Your task to perform on an android device: visit the assistant section in the google photos Image 0: 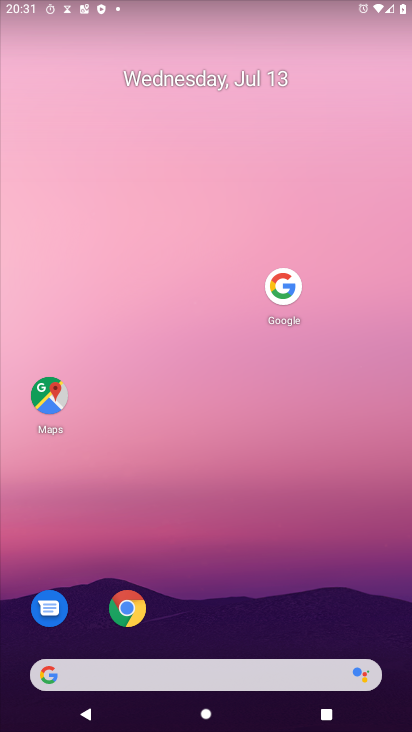
Step 0: drag from (221, 616) to (233, 116)
Your task to perform on an android device: visit the assistant section in the google photos Image 1: 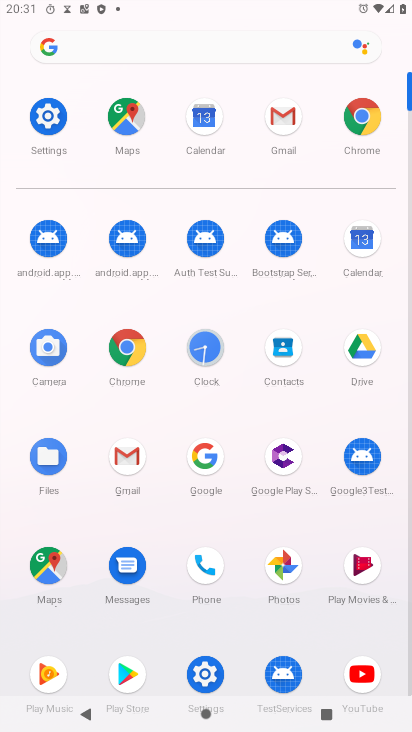
Step 1: click (263, 538)
Your task to perform on an android device: visit the assistant section in the google photos Image 2: 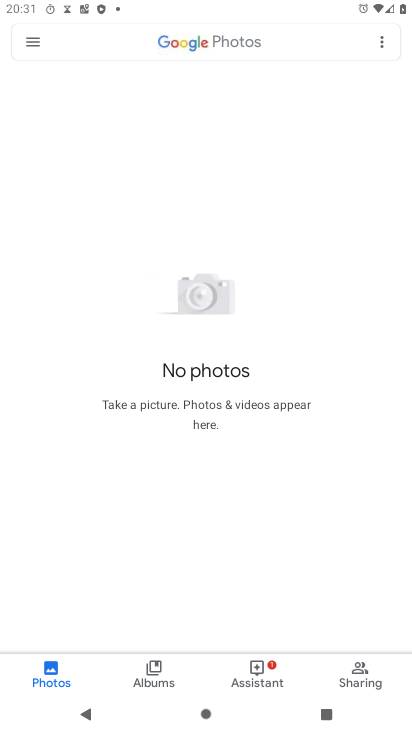
Step 2: click (257, 674)
Your task to perform on an android device: visit the assistant section in the google photos Image 3: 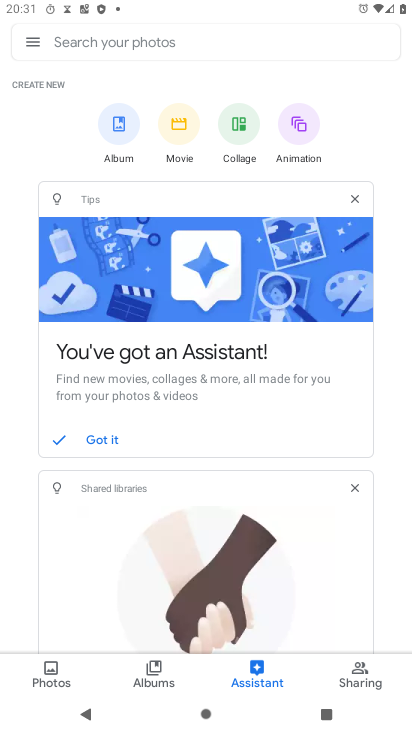
Step 3: task complete